Your task to perform on an android device: turn smart compose on in the gmail app Image 0: 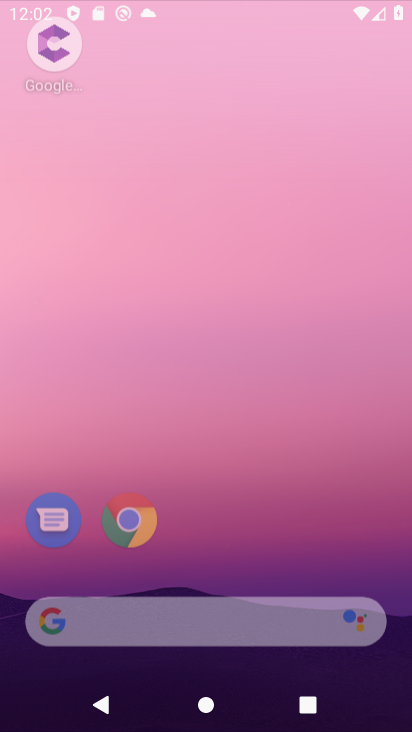
Step 0: drag from (287, 244) to (300, 203)
Your task to perform on an android device: turn smart compose on in the gmail app Image 1: 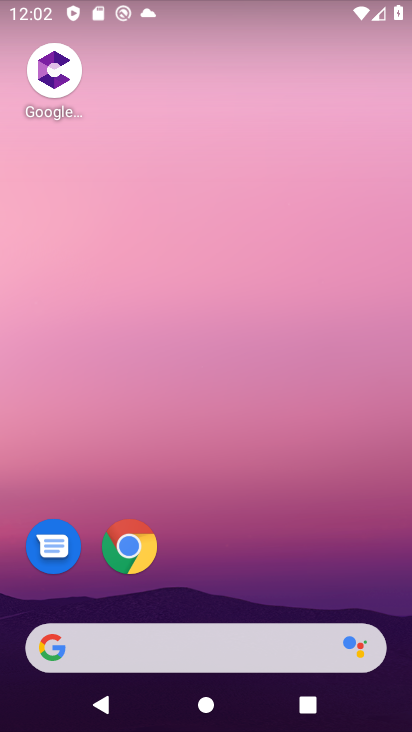
Step 1: drag from (196, 608) to (332, 94)
Your task to perform on an android device: turn smart compose on in the gmail app Image 2: 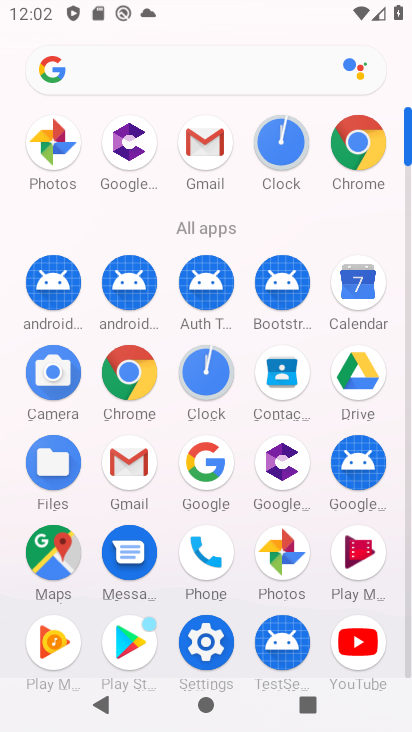
Step 2: click (138, 469)
Your task to perform on an android device: turn smart compose on in the gmail app Image 3: 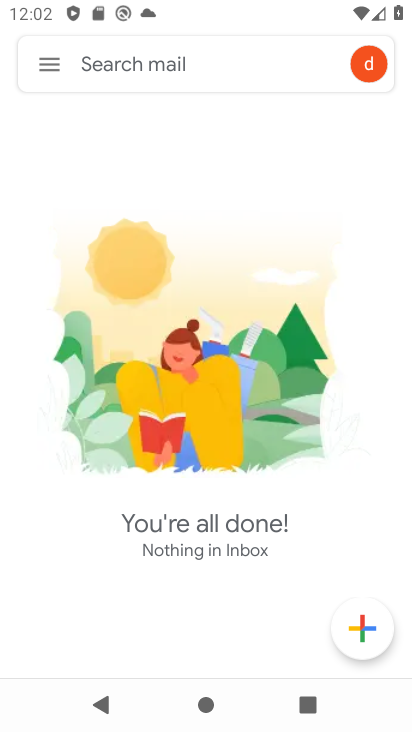
Step 3: click (42, 63)
Your task to perform on an android device: turn smart compose on in the gmail app Image 4: 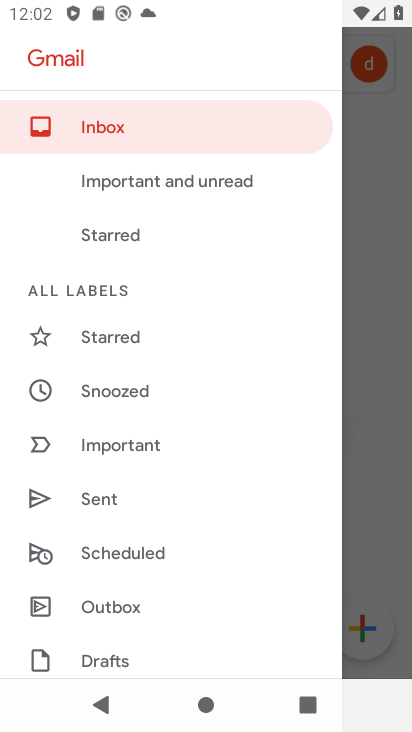
Step 4: drag from (158, 581) to (226, 226)
Your task to perform on an android device: turn smart compose on in the gmail app Image 5: 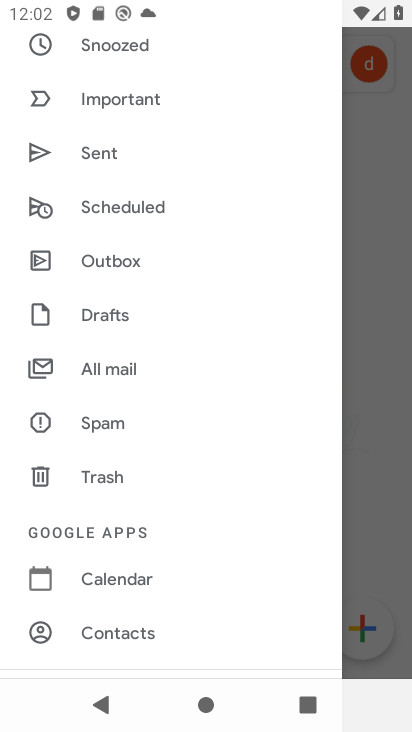
Step 5: drag from (164, 571) to (248, 200)
Your task to perform on an android device: turn smart compose on in the gmail app Image 6: 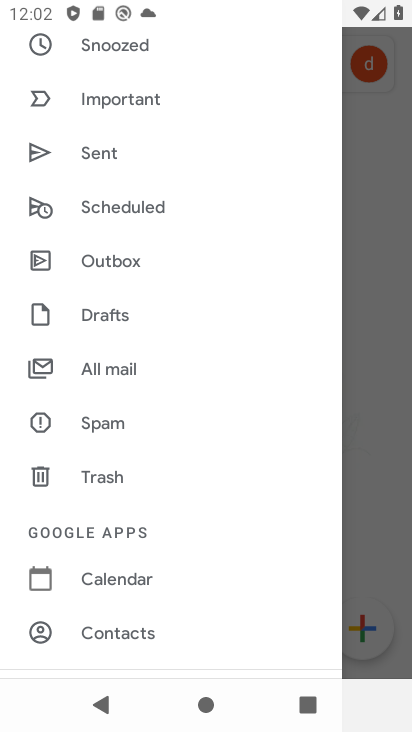
Step 6: drag from (175, 572) to (229, 168)
Your task to perform on an android device: turn smart compose on in the gmail app Image 7: 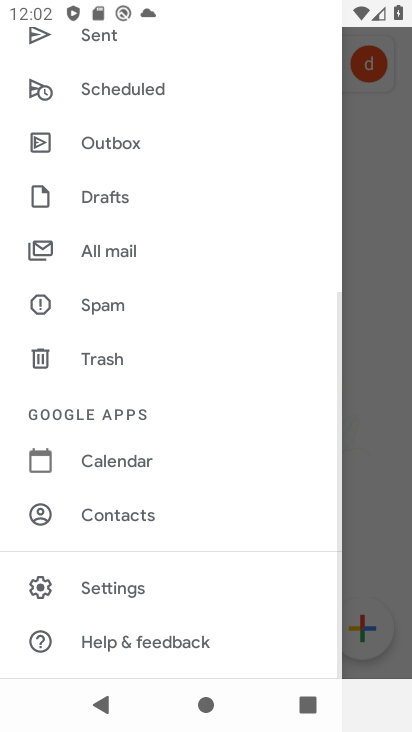
Step 7: drag from (193, 147) to (307, 66)
Your task to perform on an android device: turn smart compose on in the gmail app Image 8: 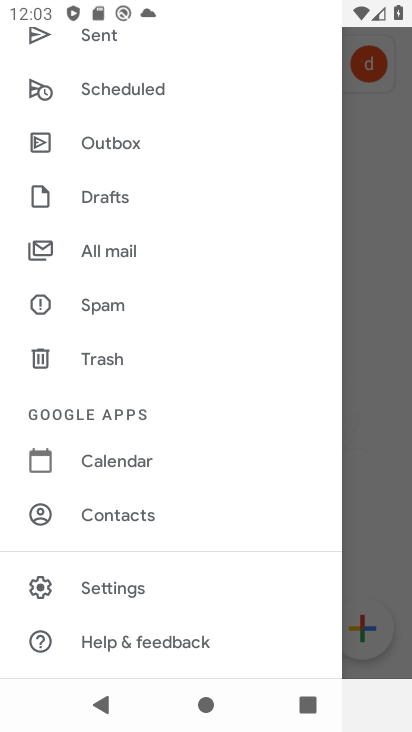
Step 8: click (95, 587)
Your task to perform on an android device: turn smart compose on in the gmail app Image 9: 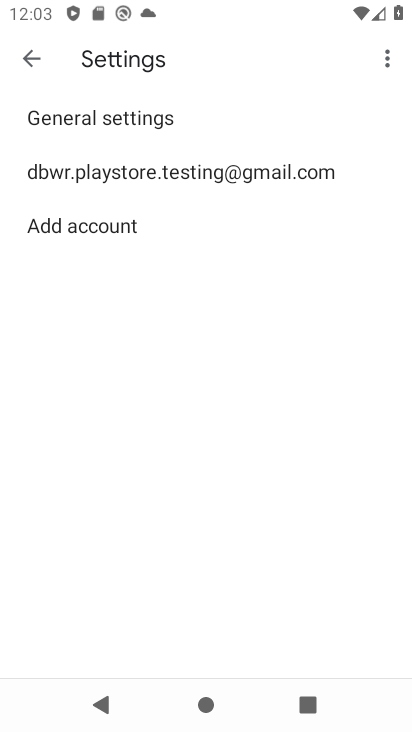
Step 9: drag from (170, 530) to (212, 199)
Your task to perform on an android device: turn smart compose on in the gmail app Image 10: 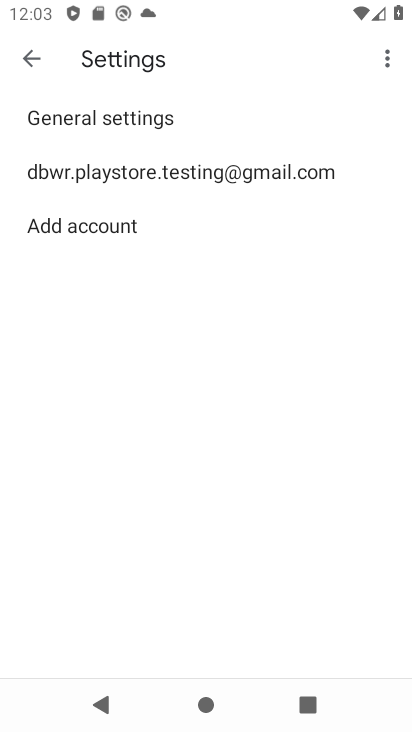
Step 10: click (207, 167)
Your task to perform on an android device: turn smart compose on in the gmail app Image 11: 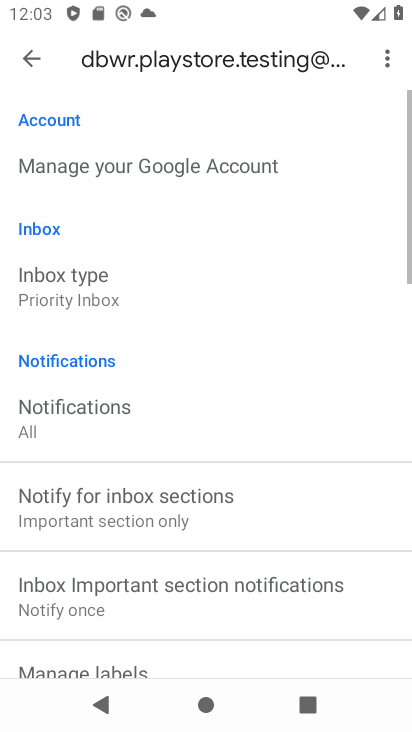
Step 11: task complete